Your task to perform on an android device: change your default location settings in chrome Image 0: 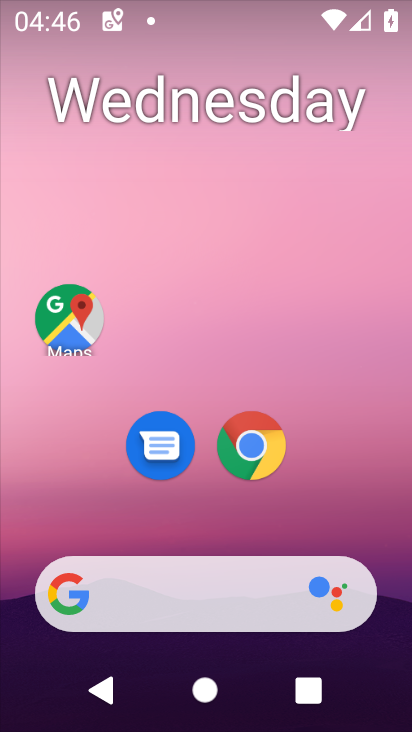
Step 0: click (249, 444)
Your task to perform on an android device: change your default location settings in chrome Image 1: 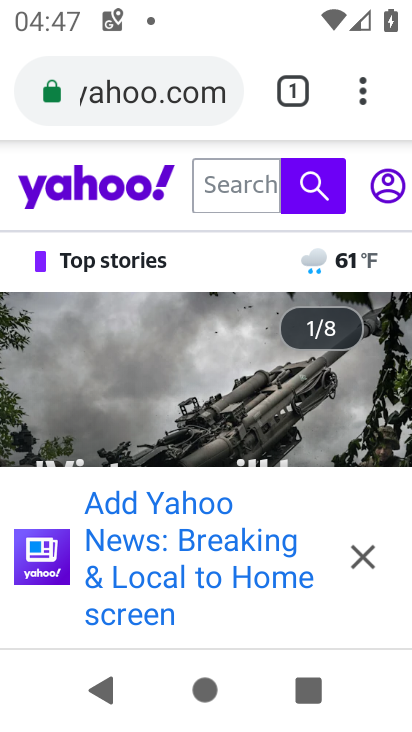
Step 1: click (376, 93)
Your task to perform on an android device: change your default location settings in chrome Image 2: 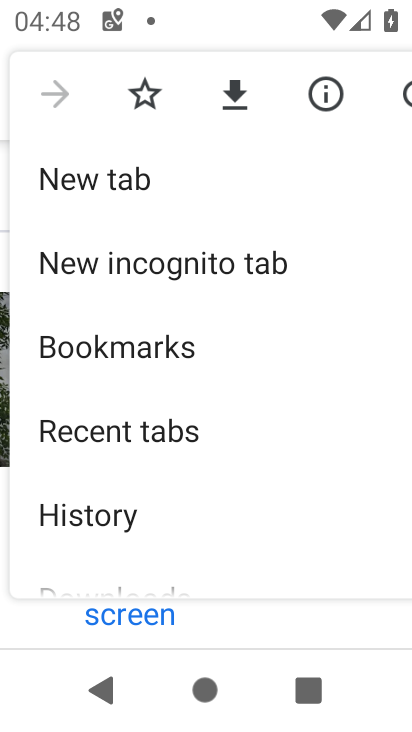
Step 2: drag from (85, 556) to (190, 119)
Your task to perform on an android device: change your default location settings in chrome Image 3: 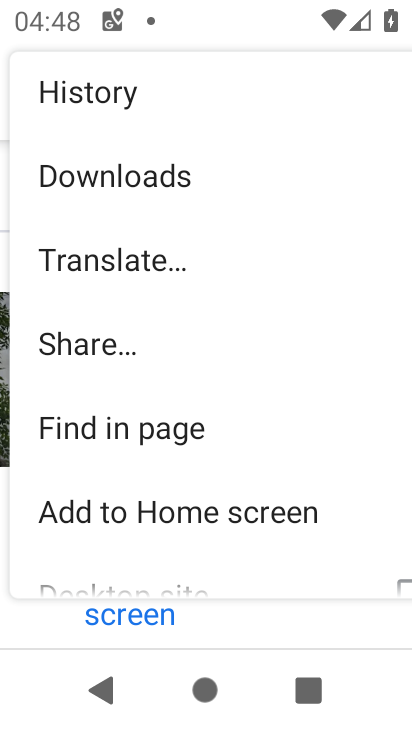
Step 3: drag from (153, 562) to (203, 253)
Your task to perform on an android device: change your default location settings in chrome Image 4: 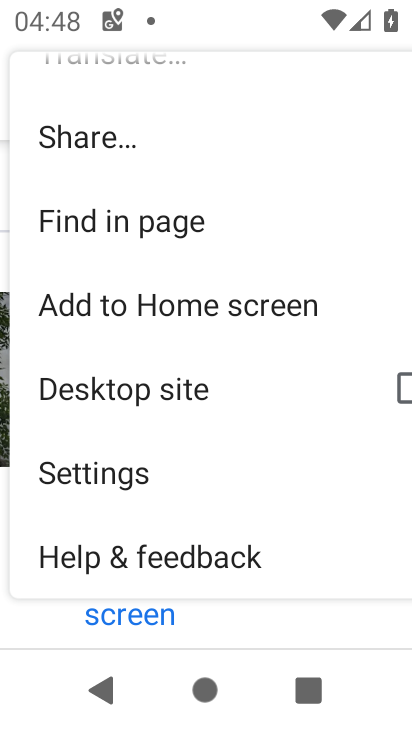
Step 4: drag from (94, 529) to (167, 153)
Your task to perform on an android device: change your default location settings in chrome Image 5: 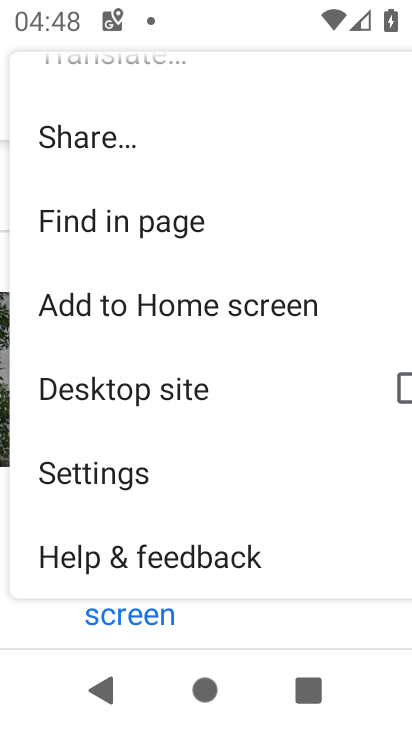
Step 5: click (120, 486)
Your task to perform on an android device: change your default location settings in chrome Image 6: 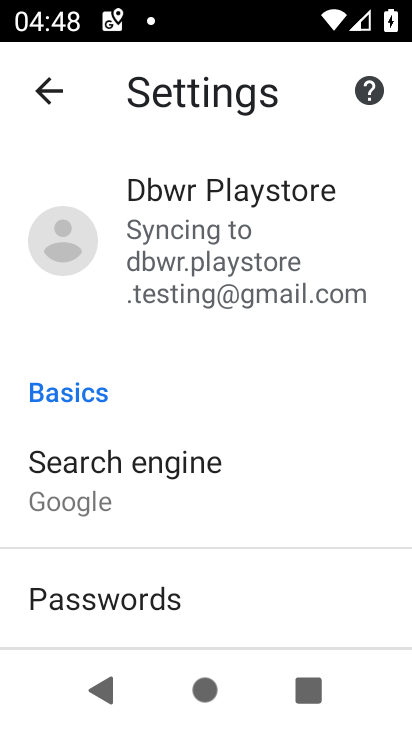
Step 6: drag from (177, 637) to (225, 197)
Your task to perform on an android device: change your default location settings in chrome Image 7: 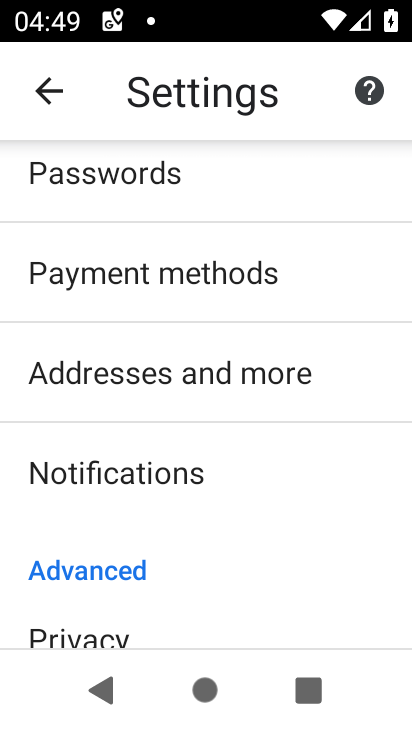
Step 7: drag from (134, 609) to (219, 265)
Your task to perform on an android device: change your default location settings in chrome Image 8: 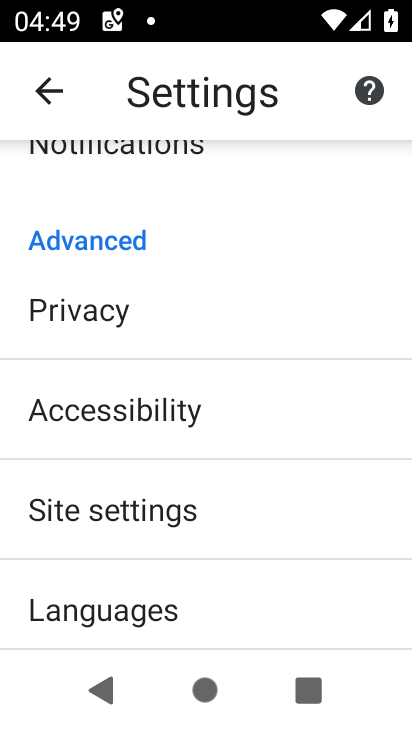
Step 8: click (75, 488)
Your task to perform on an android device: change your default location settings in chrome Image 9: 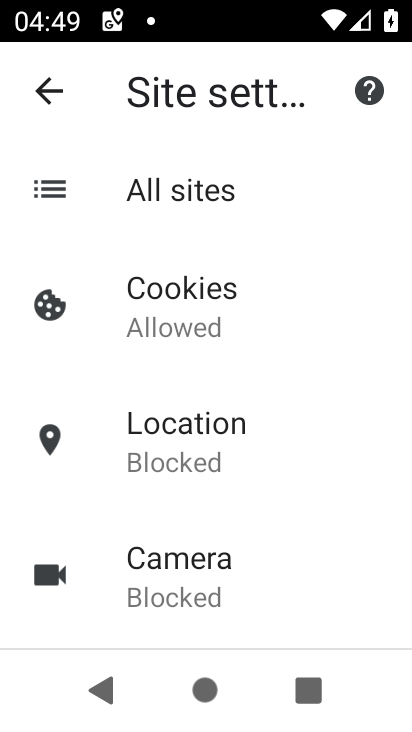
Step 9: click (133, 453)
Your task to perform on an android device: change your default location settings in chrome Image 10: 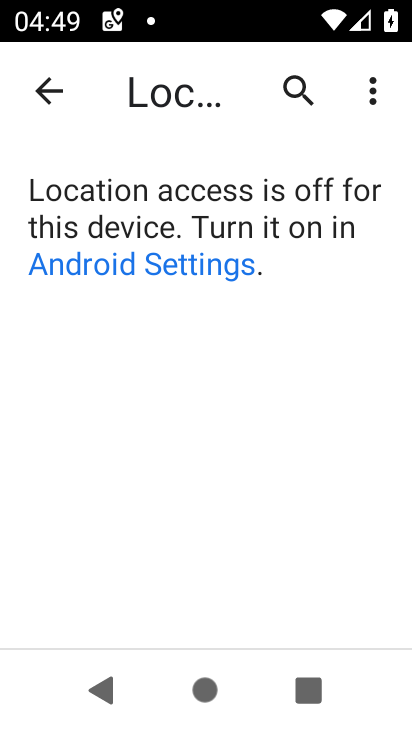
Step 10: task complete